Your task to perform on an android device: check the backup settings in the google photos Image 0: 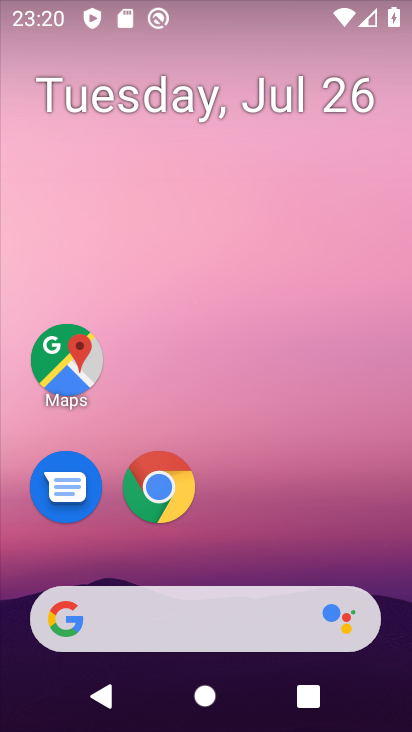
Step 0: drag from (252, 531) to (309, 6)
Your task to perform on an android device: check the backup settings in the google photos Image 1: 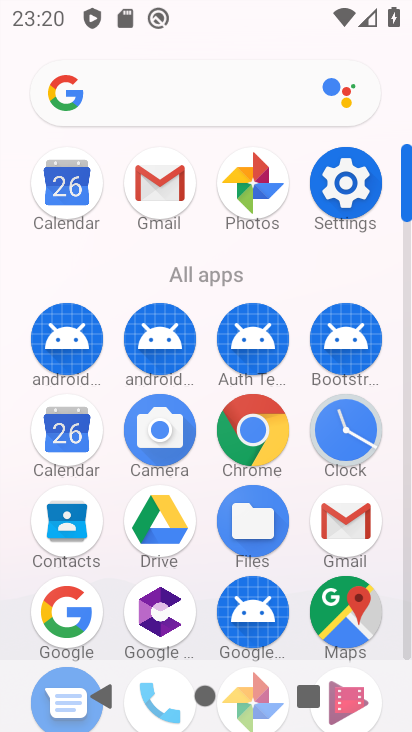
Step 1: click (253, 173)
Your task to perform on an android device: check the backup settings in the google photos Image 2: 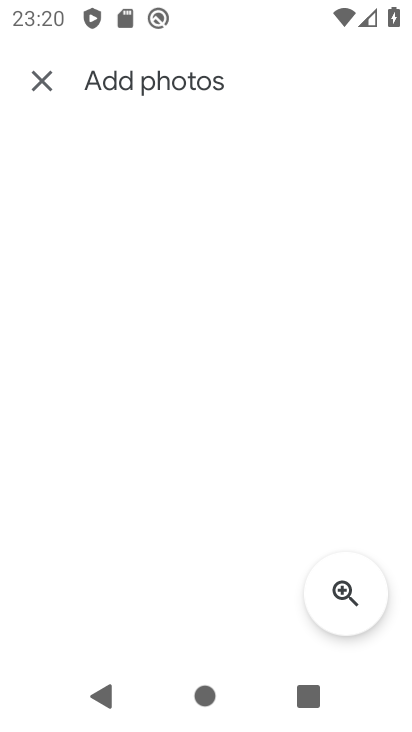
Step 2: click (17, 63)
Your task to perform on an android device: check the backup settings in the google photos Image 3: 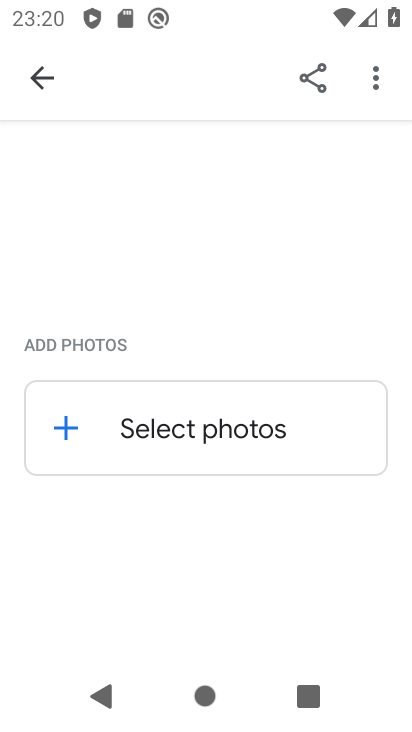
Step 3: click (0, 56)
Your task to perform on an android device: check the backup settings in the google photos Image 4: 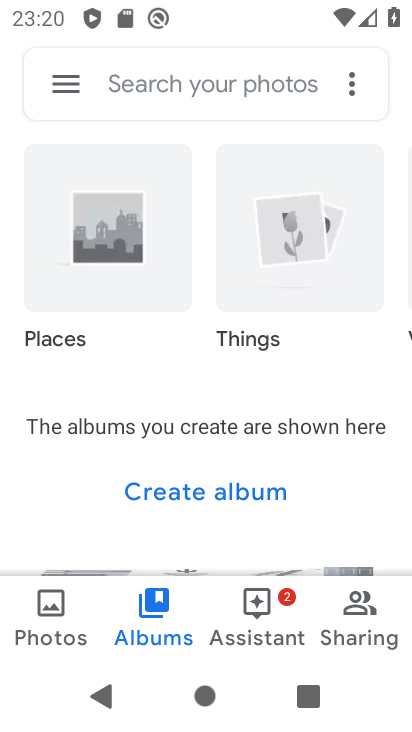
Step 4: click (57, 81)
Your task to perform on an android device: check the backup settings in the google photos Image 5: 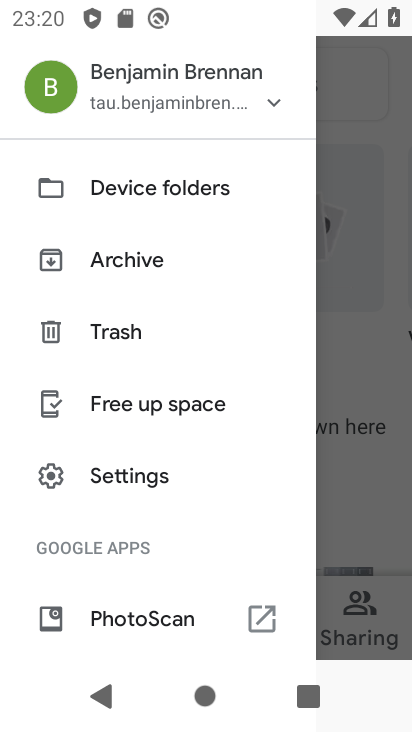
Step 5: click (127, 486)
Your task to perform on an android device: check the backup settings in the google photos Image 6: 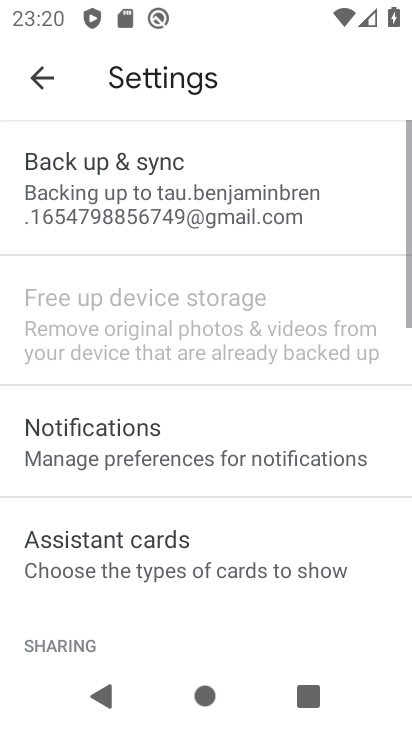
Step 6: click (170, 185)
Your task to perform on an android device: check the backup settings in the google photos Image 7: 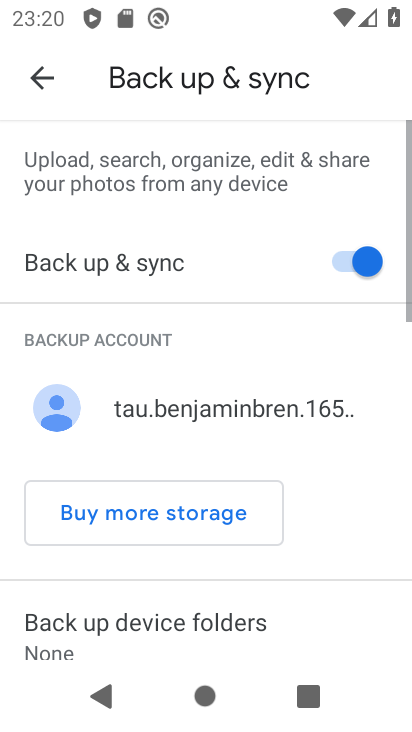
Step 7: task complete